Your task to perform on an android device: Go to CNN.com Image 0: 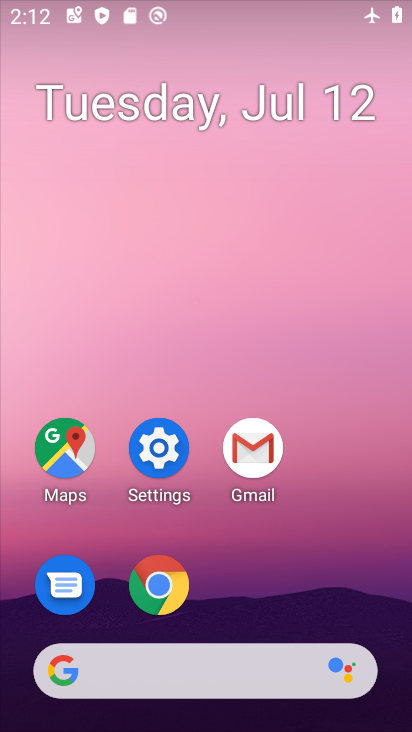
Step 0: click (140, 452)
Your task to perform on an android device: Go to CNN.com Image 1: 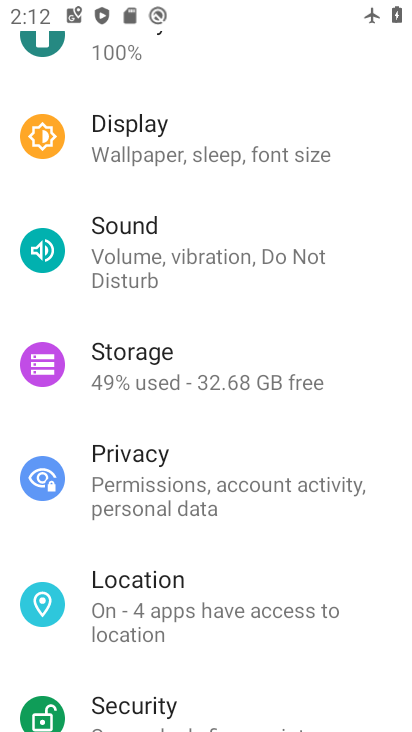
Step 1: click (164, 138)
Your task to perform on an android device: Go to CNN.com Image 2: 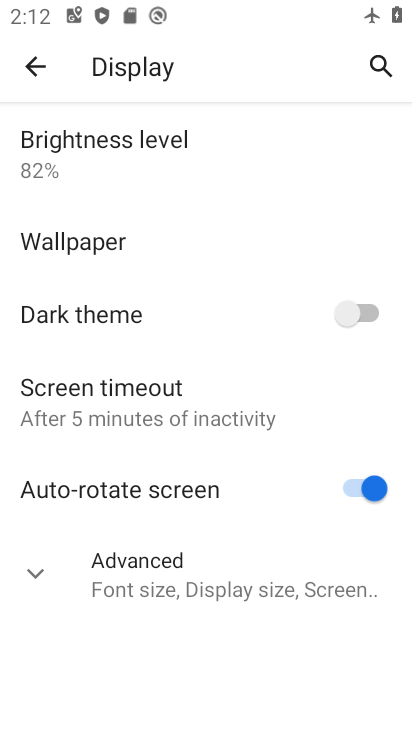
Step 2: click (33, 566)
Your task to perform on an android device: Go to CNN.com Image 3: 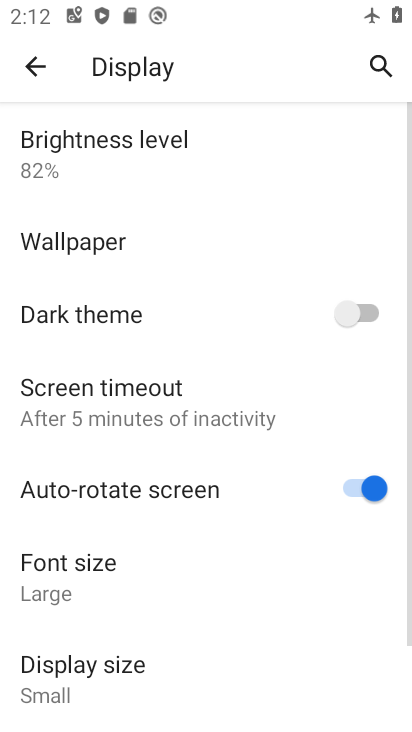
Step 3: click (43, 573)
Your task to perform on an android device: Go to CNN.com Image 4: 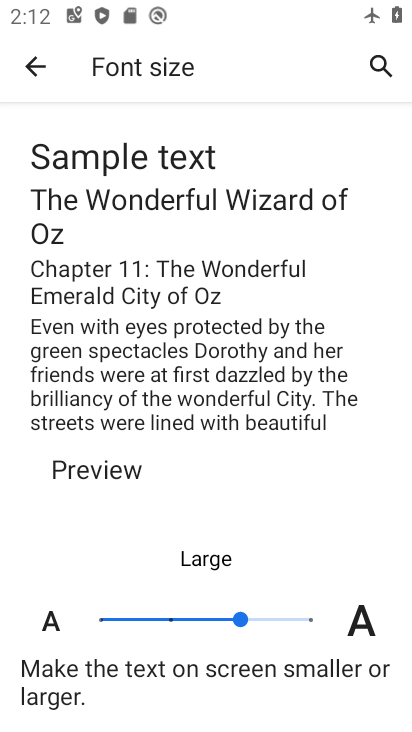
Step 4: click (169, 621)
Your task to perform on an android device: Go to CNN.com Image 5: 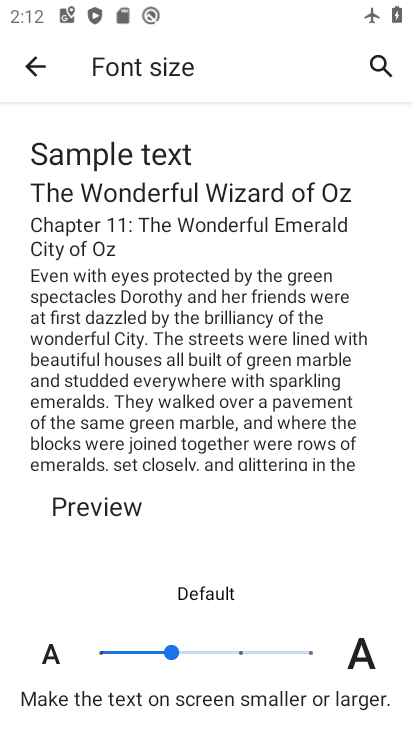
Step 5: click (42, 69)
Your task to perform on an android device: Go to CNN.com Image 6: 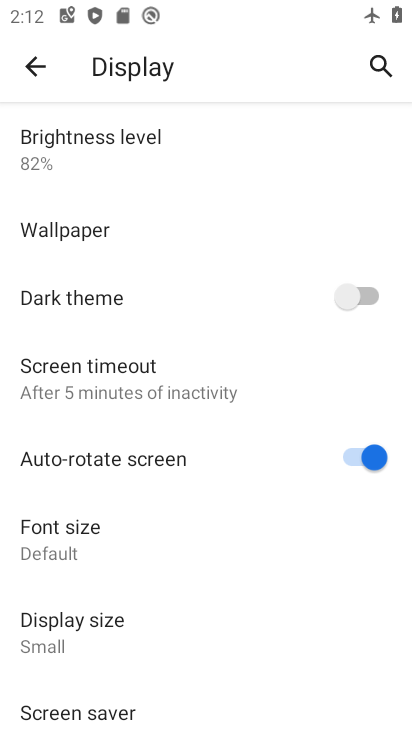
Step 6: click (37, 68)
Your task to perform on an android device: Go to CNN.com Image 7: 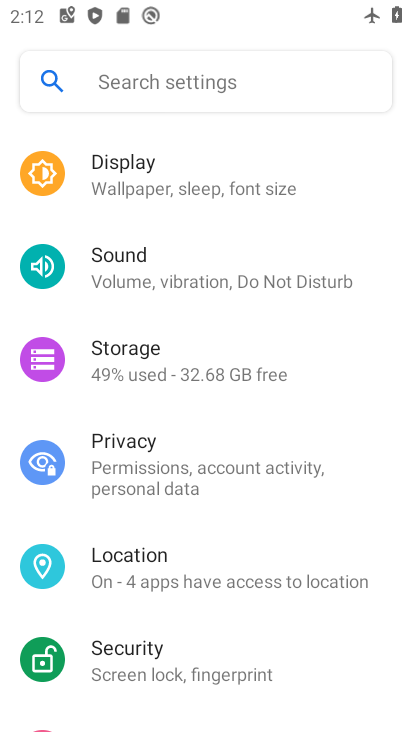
Step 7: press home button
Your task to perform on an android device: Go to CNN.com Image 8: 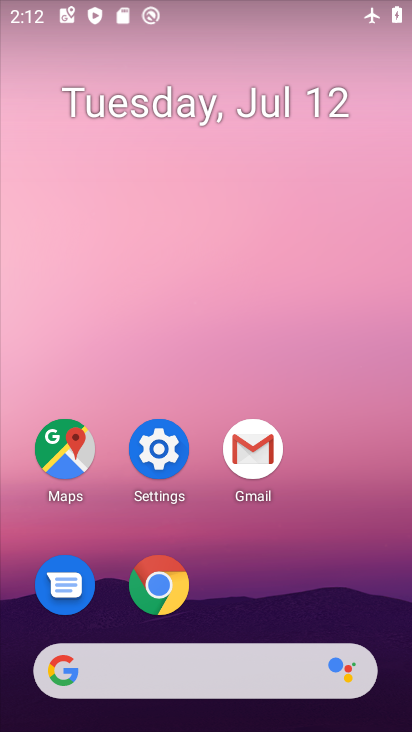
Step 8: click (172, 589)
Your task to perform on an android device: Go to CNN.com Image 9: 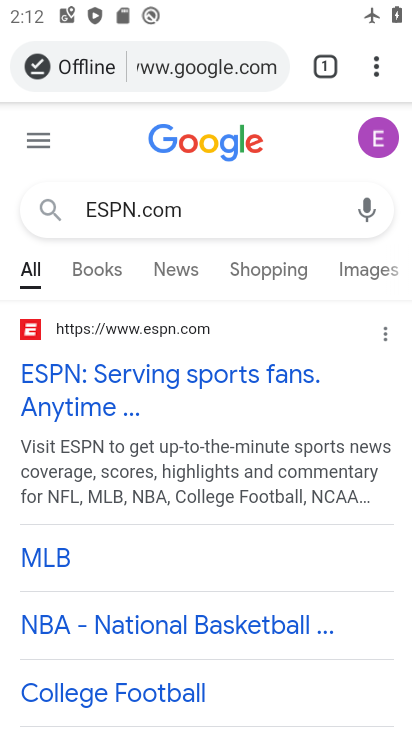
Step 9: click (225, 69)
Your task to perform on an android device: Go to CNN.com Image 10: 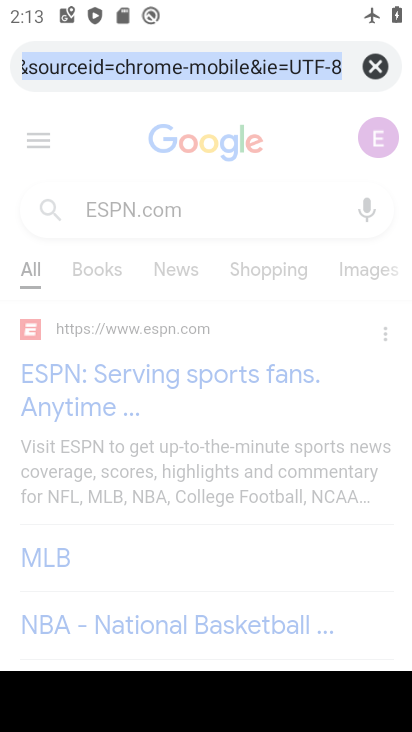
Step 10: click (371, 72)
Your task to perform on an android device: Go to CNN.com Image 11: 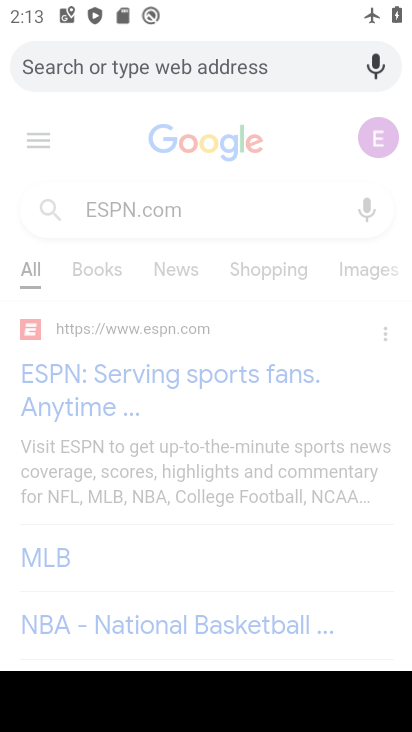
Step 11: type "CNN.com"
Your task to perform on an android device: Go to CNN.com Image 12: 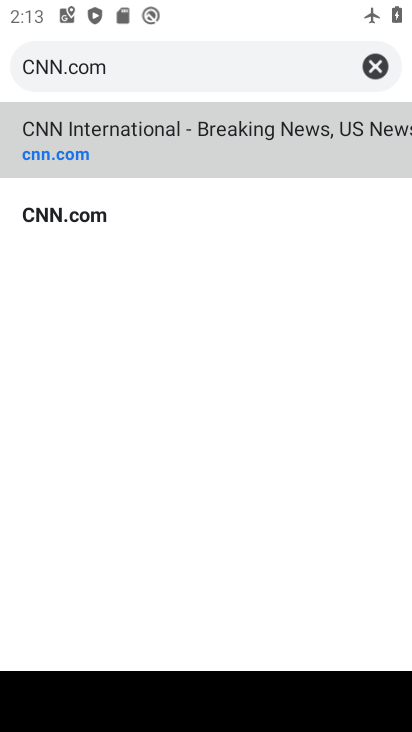
Step 12: task complete